Your task to perform on an android device: Open sound settings Image 0: 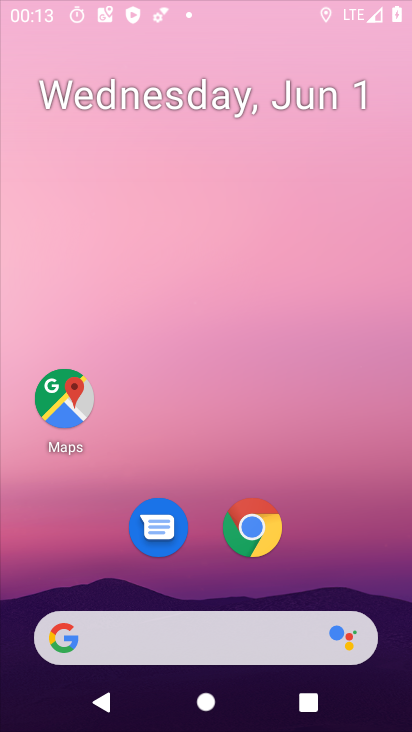
Step 0: click (188, 90)
Your task to perform on an android device: Open sound settings Image 1: 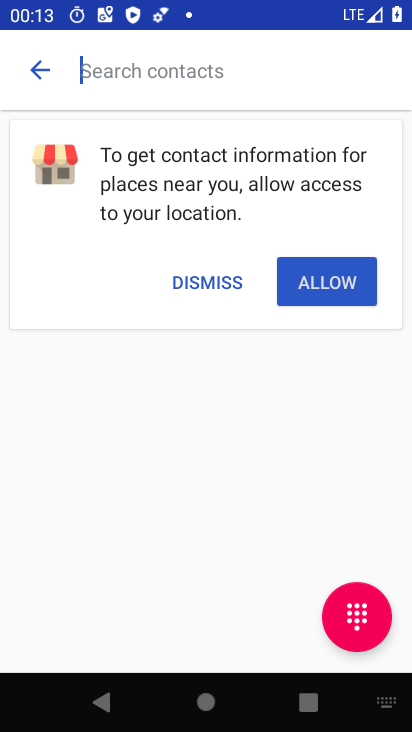
Step 1: drag from (173, 568) to (179, 145)
Your task to perform on an android device: Open sound settings Image 2: 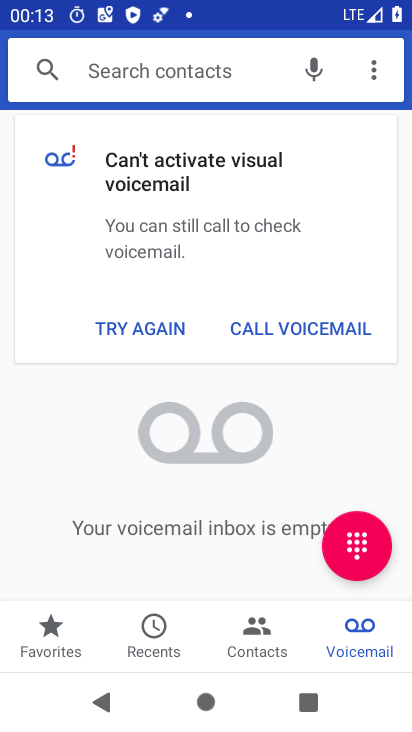
Step 2: press home button
Your task to perform on an android device: Open sound settings Image 3: 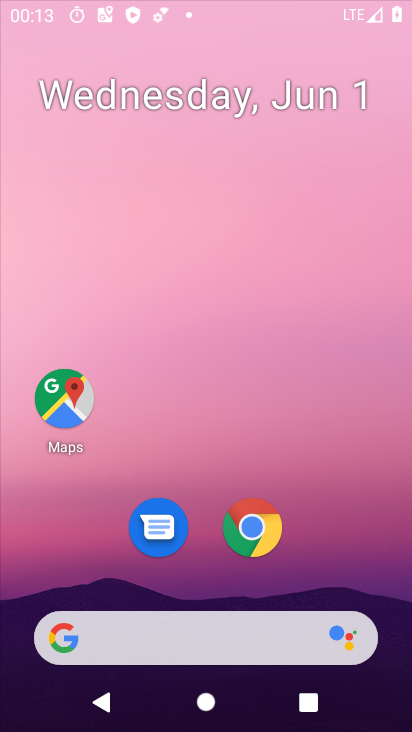
Step 3: drag from (212, 515) to (173, 235)
Your task to perform on an android device: Open sound settings Image 4: 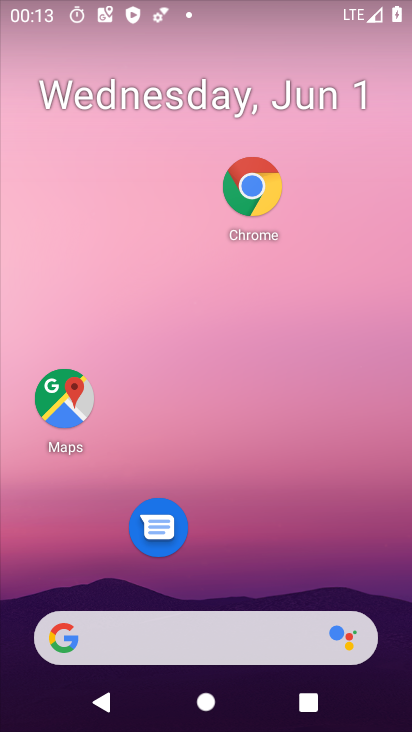
Step 4: drag from (197, 476) to (193, 160)
Your task to perform on an android device: Open sound settings Image 5: 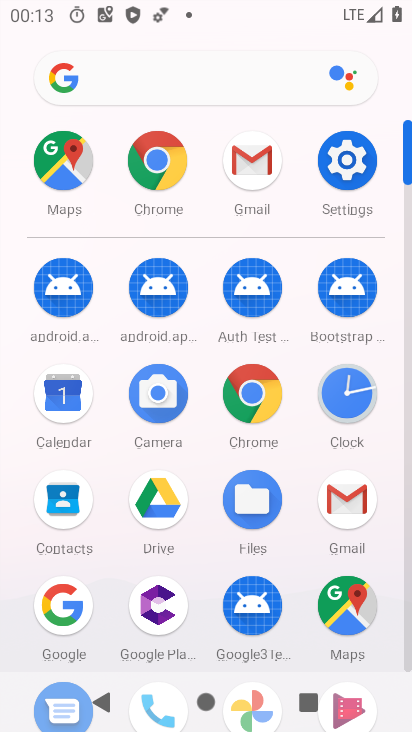
Step 5: click (347, 168)
Your task to perform on an android device: Open sound settings Image 6: 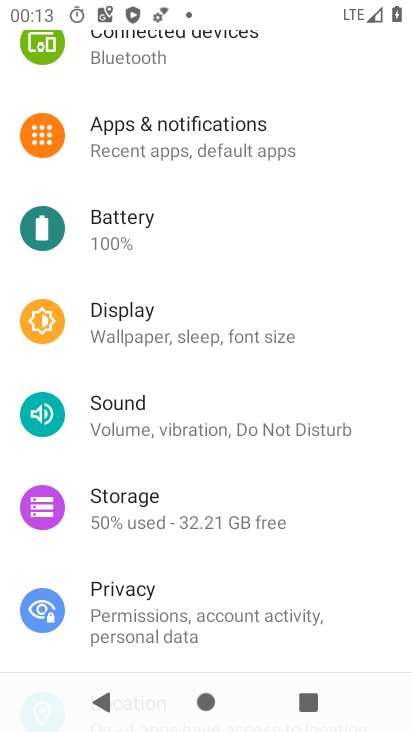
Step 6: click (166, 421)
Your task to perform on an android device: Open sound settings Image 7: 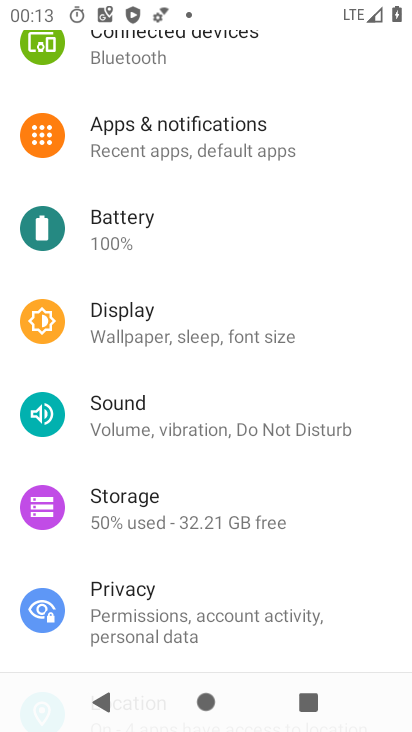
Step 7: click (166, 421)
Your task to perform on an android device: Open sound settings Image 8: 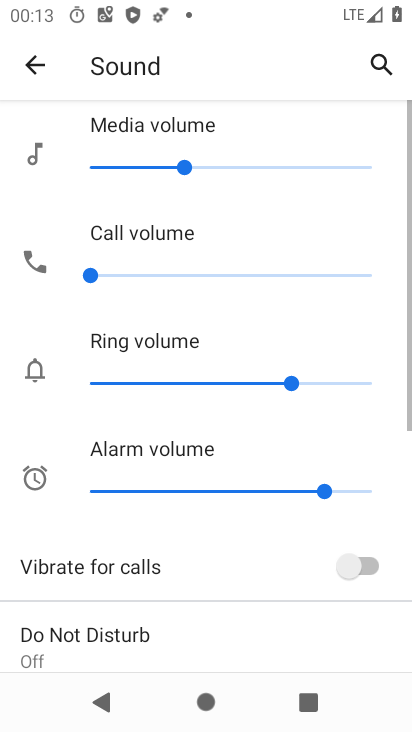
Step 8: task complete